Your task to perform on an android device: Empty the shopping cart on amazon. Image 0: 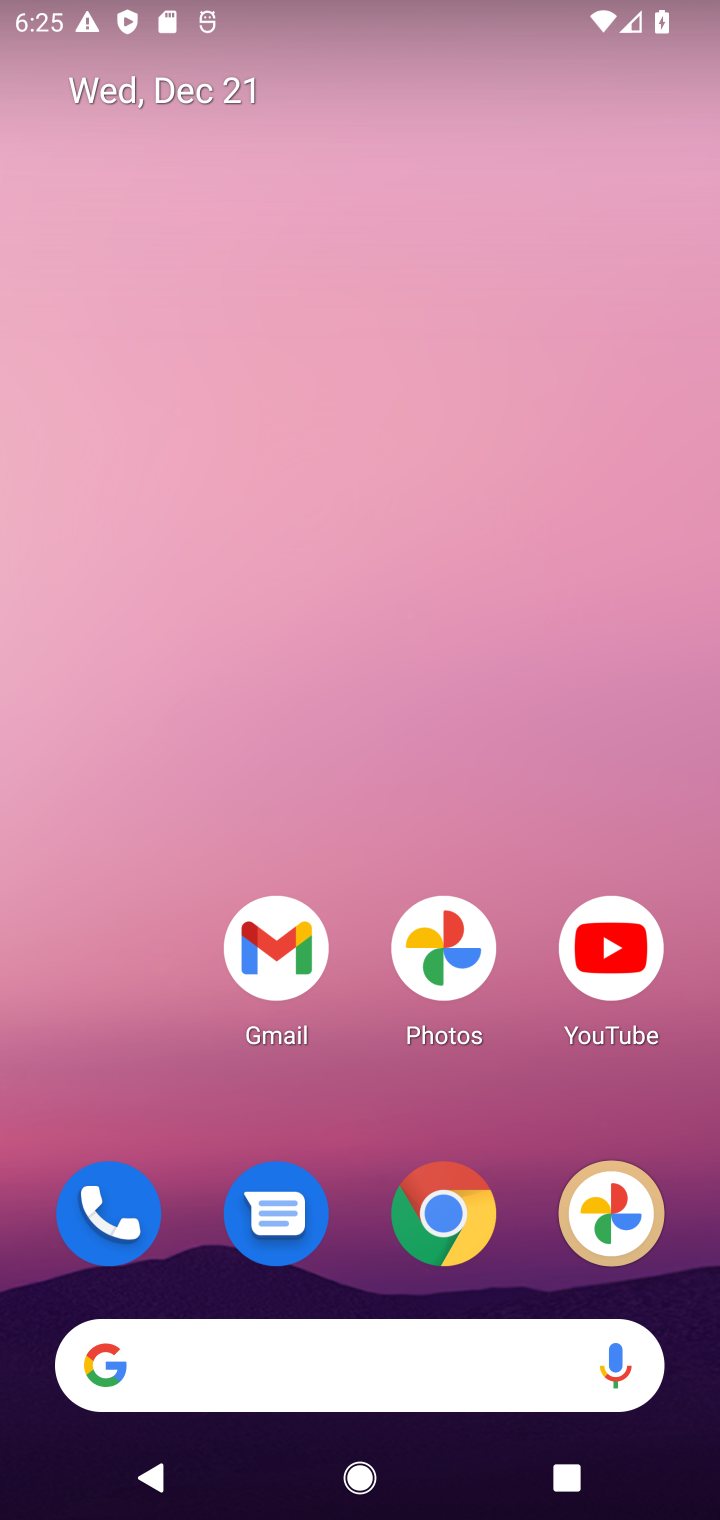
Step 0: click (433, 1255)
Your task to perform on an android device: Empty the shopping cart on amazon. Image 1: 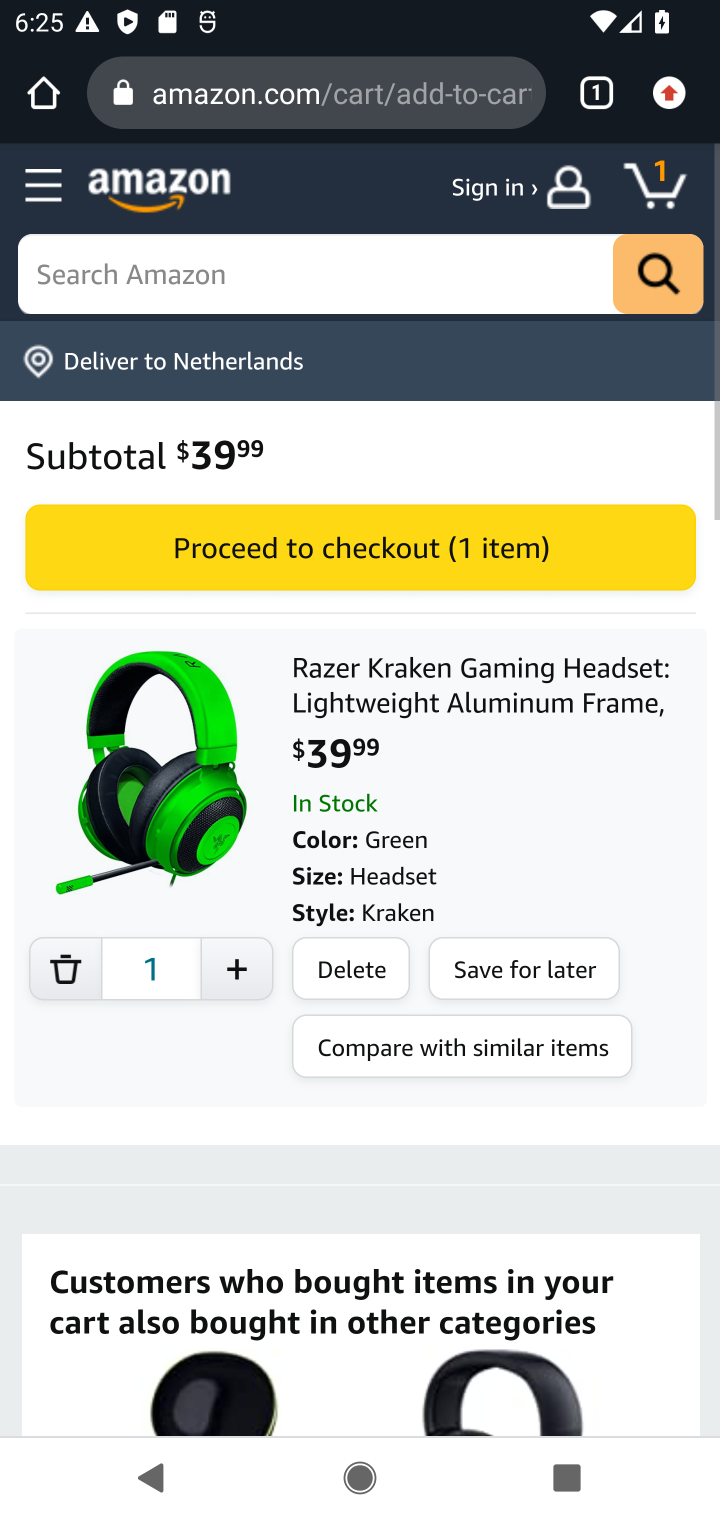
Step 1: click (210, 104)
Your task to perform on an android device: Empty the shopping cart on amazon. Image 2: 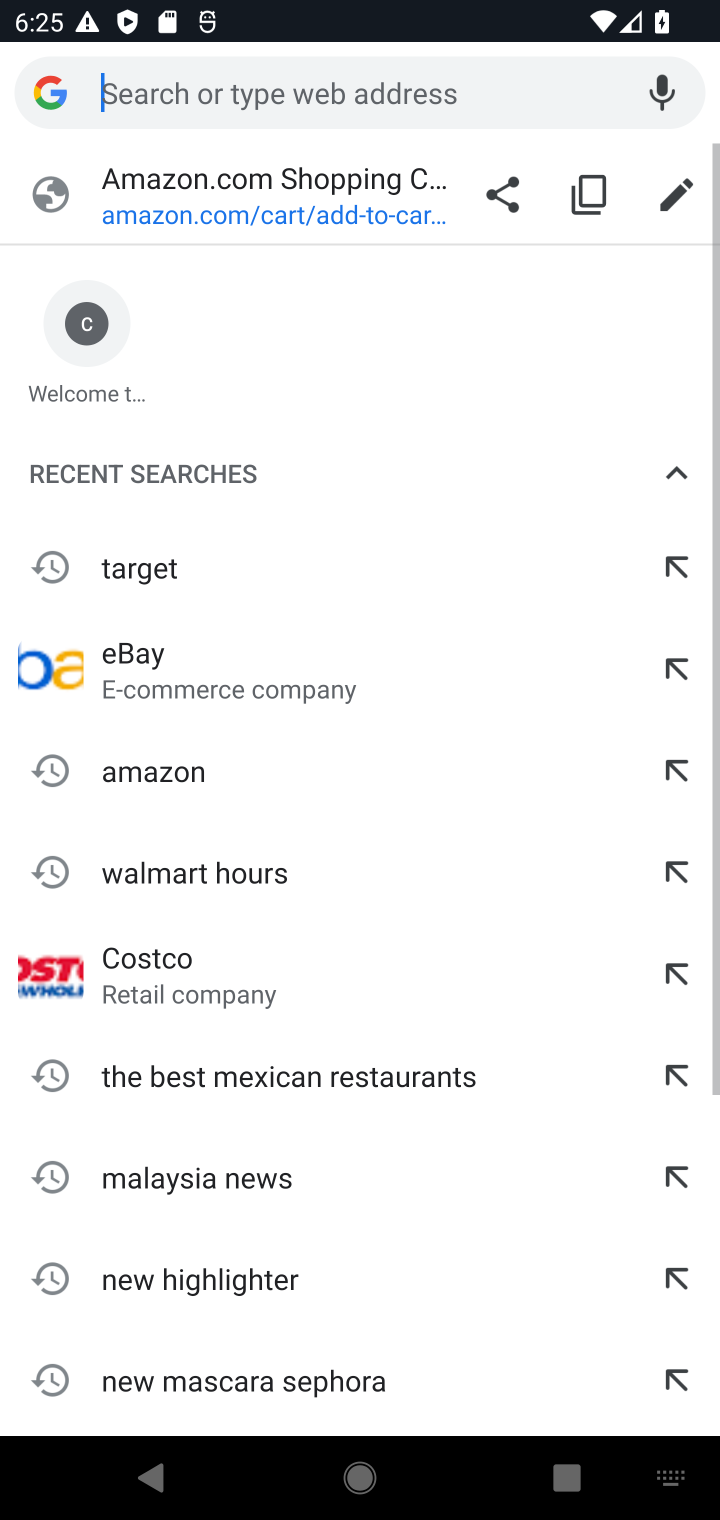
Step 2: click (263, 222)
Your task to perform on an android device: Empty the shopping cart on amazon. Image 3: 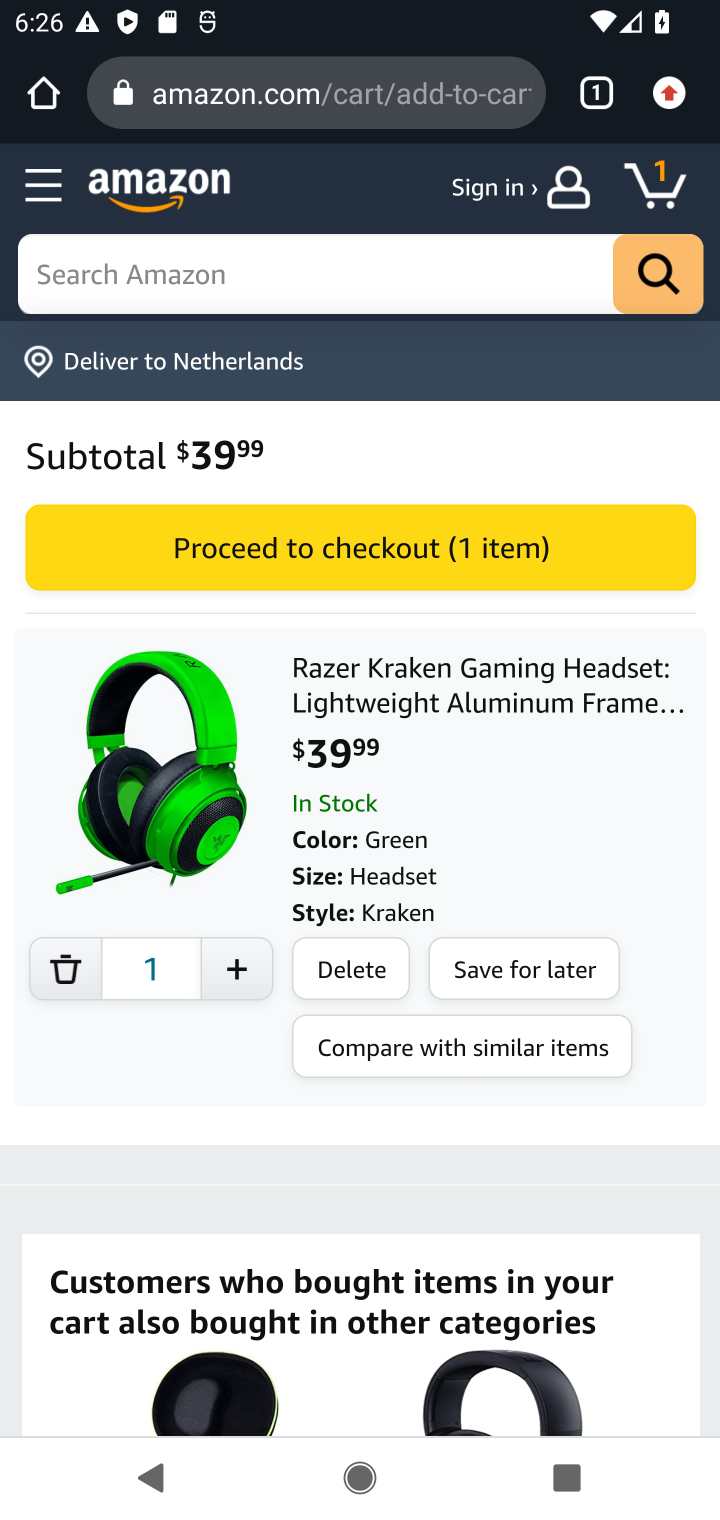
Step 3: click (644, 172)
Your task to perform on an android device: Empty the shopping cart on amazon. Image 4: 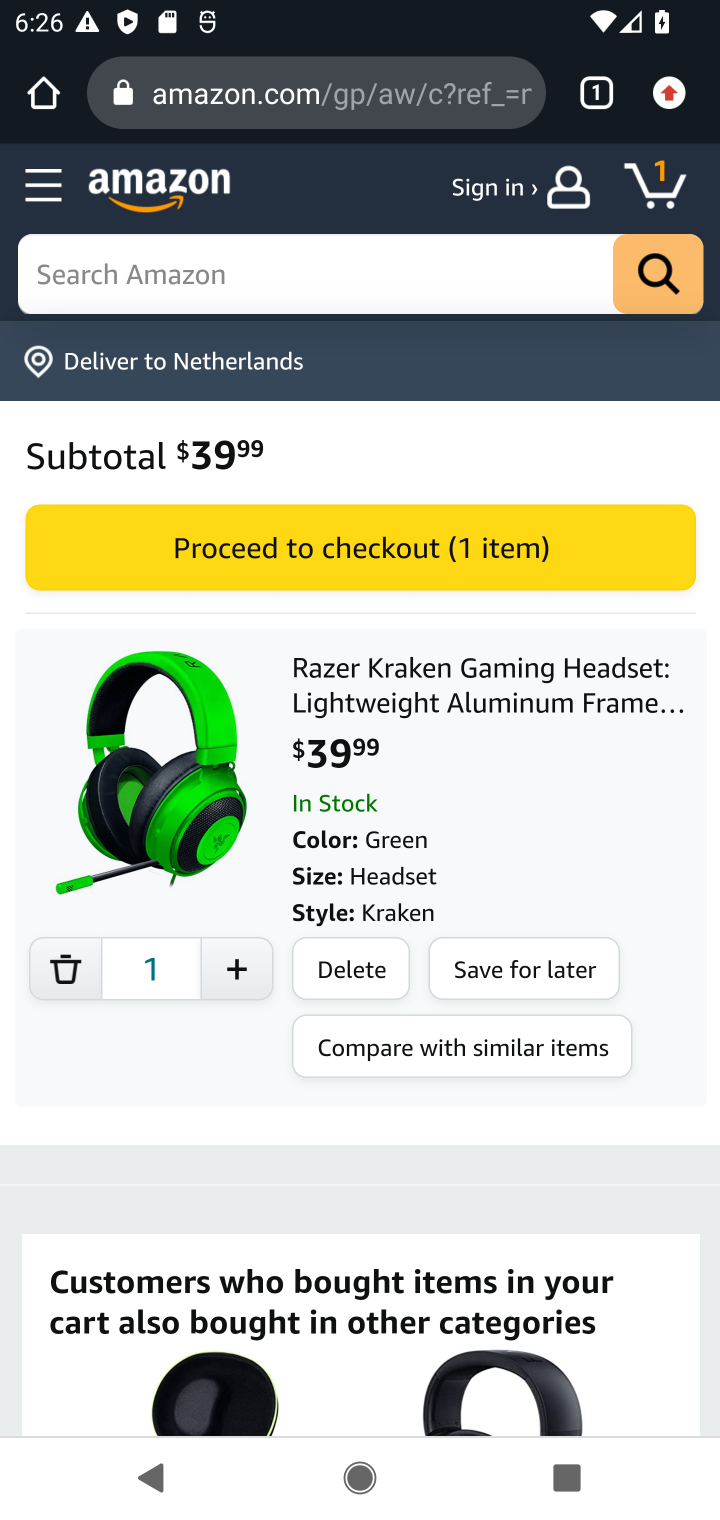
Step 4: click (353, 967)
Your task to perform on an android device: Empty the shopping cart on amazon. Image 5: 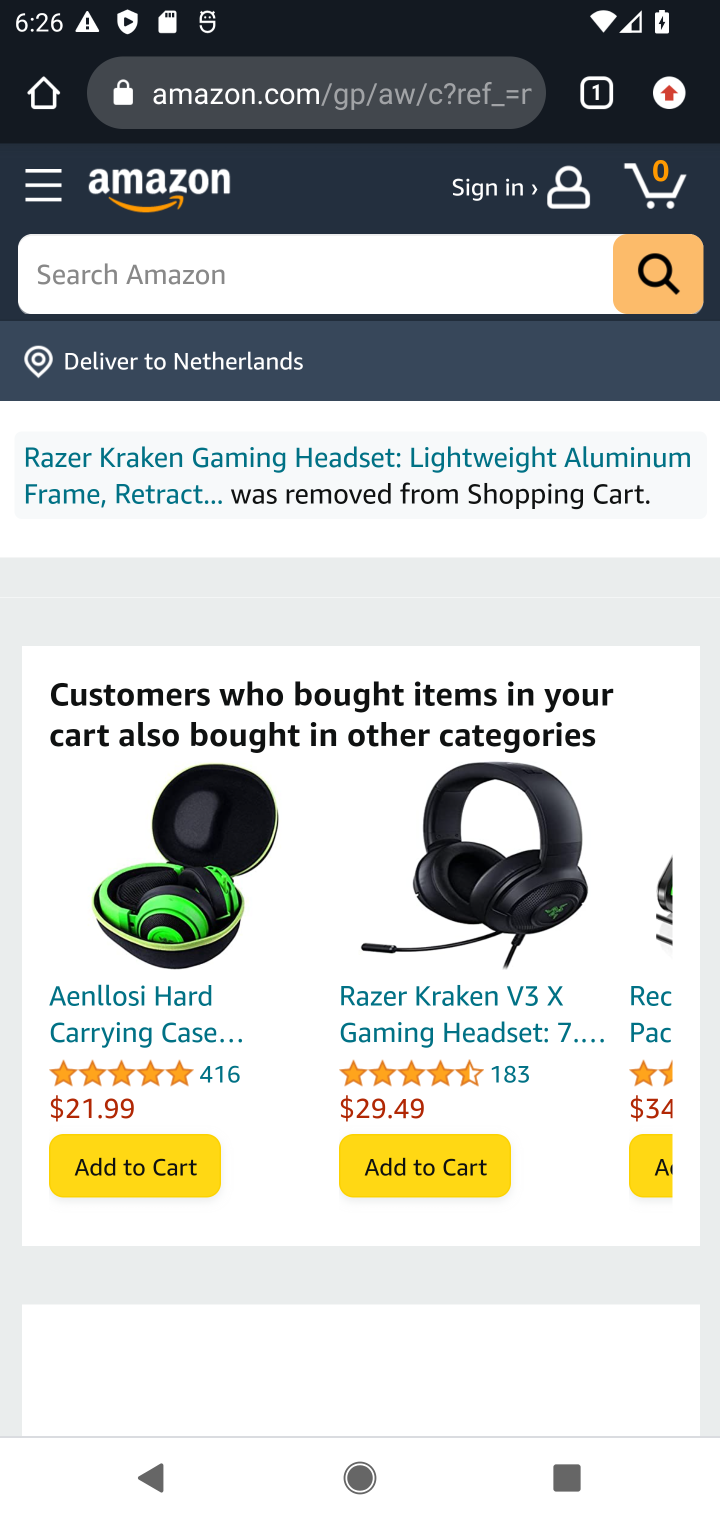
Step 5: task complete